Your task to perform on an android device: open chrome and create a bookmark for the current page Image 0: 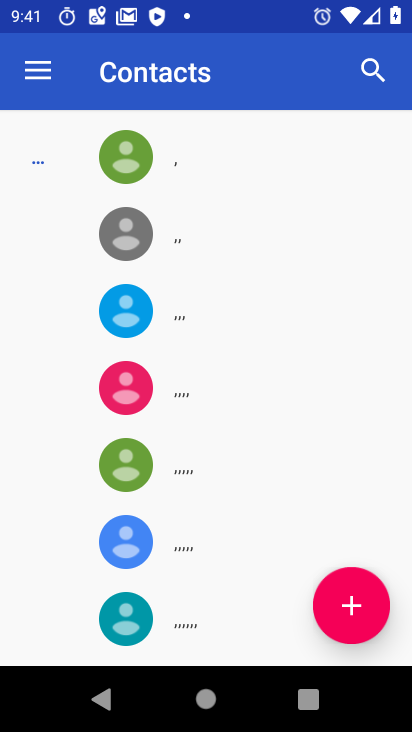
Step 0: press home button
Your task to perform on an android device: open chrome and create a bookmark for the current page Image 1: 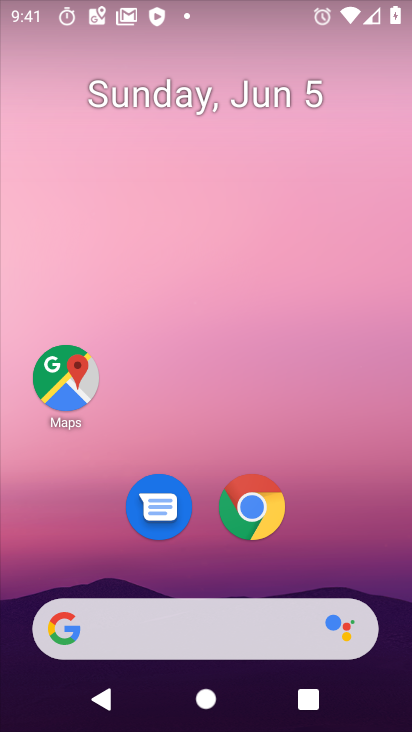
Step 1: drag from (213, 672) to (244, 240)
Your task to perform on an android device: open chrome and create a bookmark for the current page Image 2: 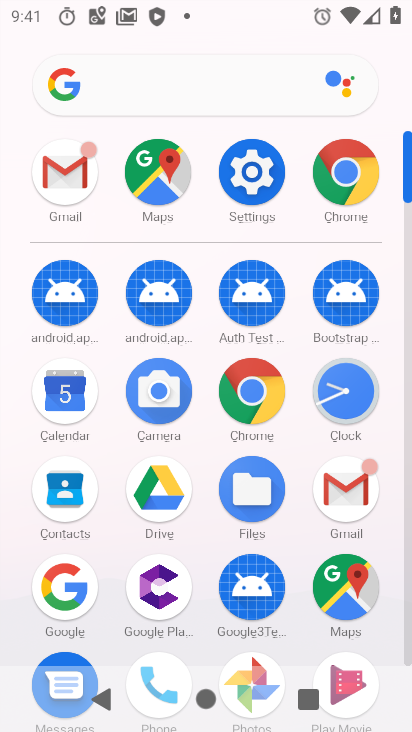
Step 2: click (339, 208)
Your task to perform on an android device: open chrome and create a bookmark for the current page Image 3: 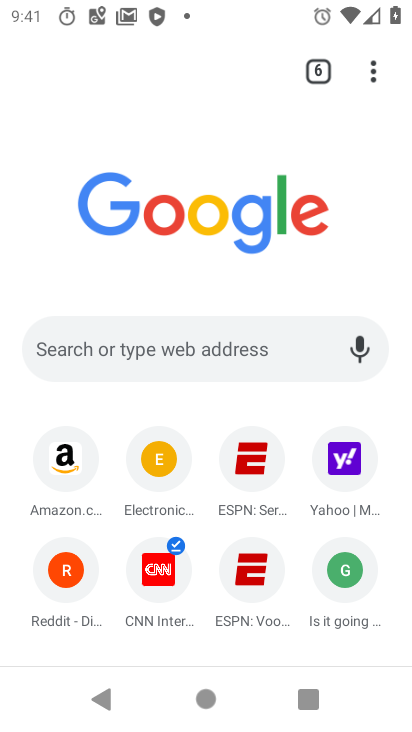
Step 3: click (370, 89)
Your task to perform on an android device: open chrome and create a bookmark for the current page Image 4: 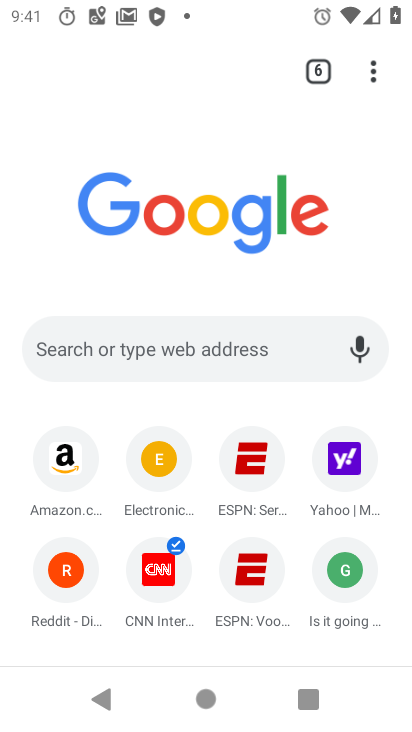
Step 4: click (364, 80)
Your task to perform on an android device: open chrome and create a bookmark for the current page Image 5: 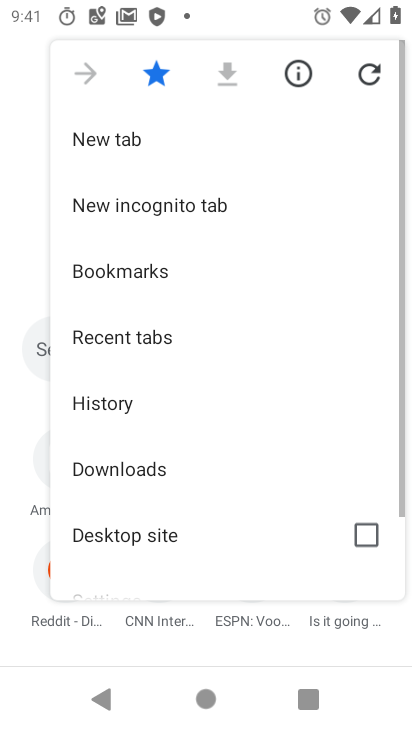
Step 5: drag from (197, 474) to (239, 316)
Your task to perform on an android device: open chrome and create a bookmark for the current page Image 6: 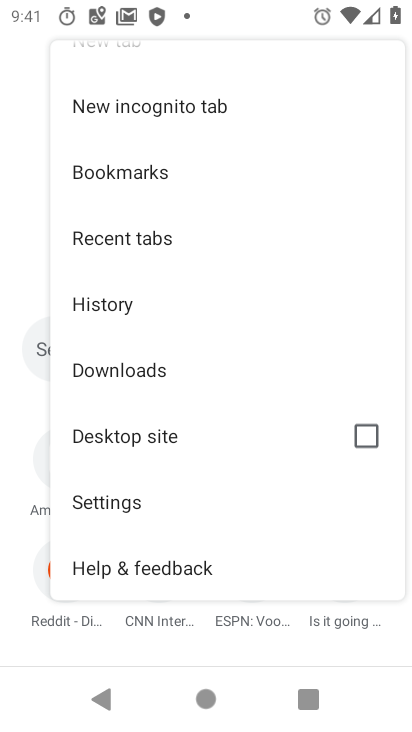
Step 6: click (135, 177)
Your task to perform on an android device: open chrome and create a bookmark for the current page Image 7: 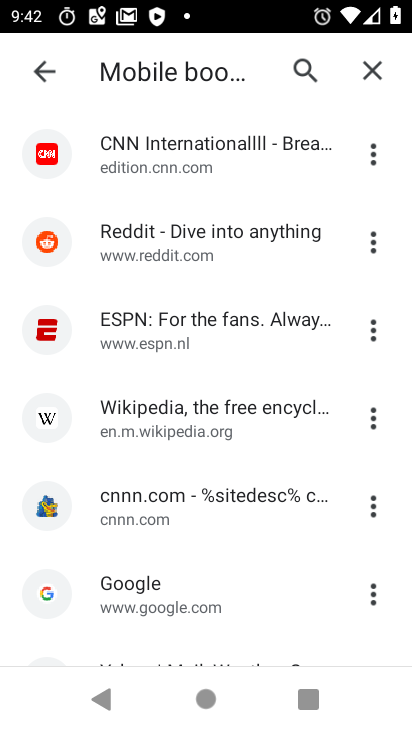
Step 7: task complete